Your task to perform on an android device: Go to location settings Image 0: 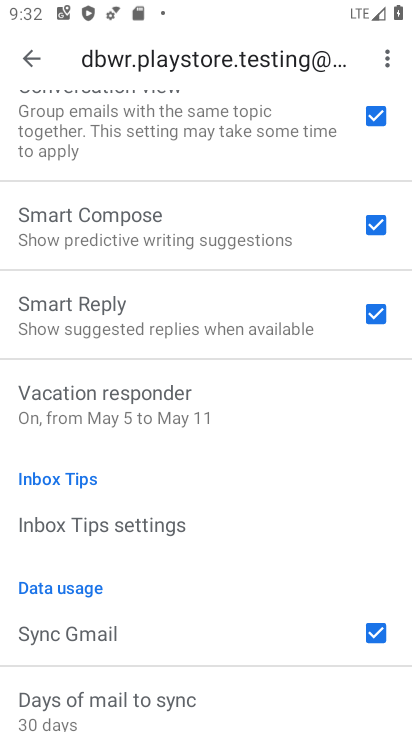
Step 0: press home button
Your task to perform on an android device: Go to location settings Image 1: 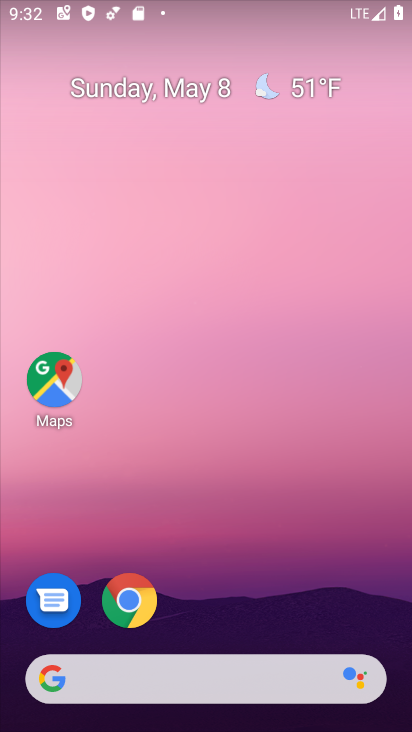
Step 1: drag from (324, 614) to (293, 6)
Your task to perform on an android device: Go to location settings Image 2: 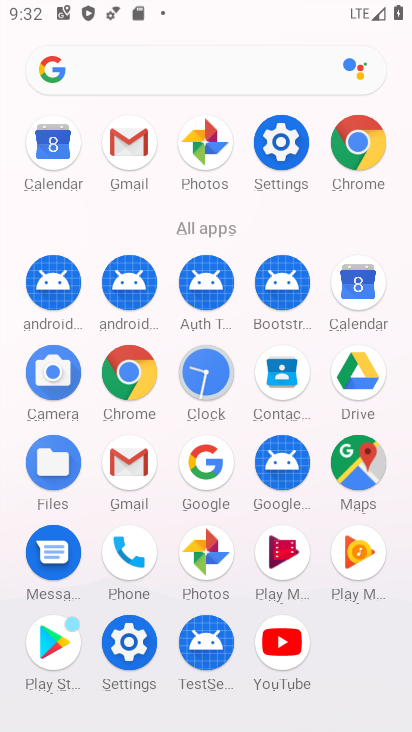
Step 2: click (278, 141)
Your task to perform on an android device: Go to location settings Image 3: 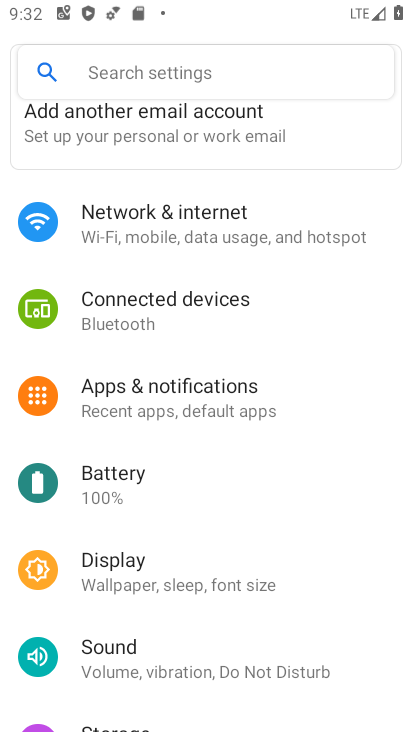
Step 3: drag from (344, 611) to (356, 147)
Your task to perform on an android device: Go to location settings Image 4: 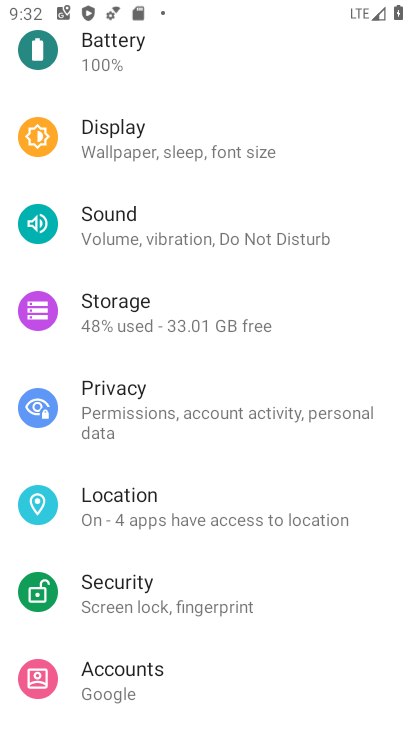
Step 4: click (118, 516)
Your task to perform on an android device: Go to location settings Image 5: 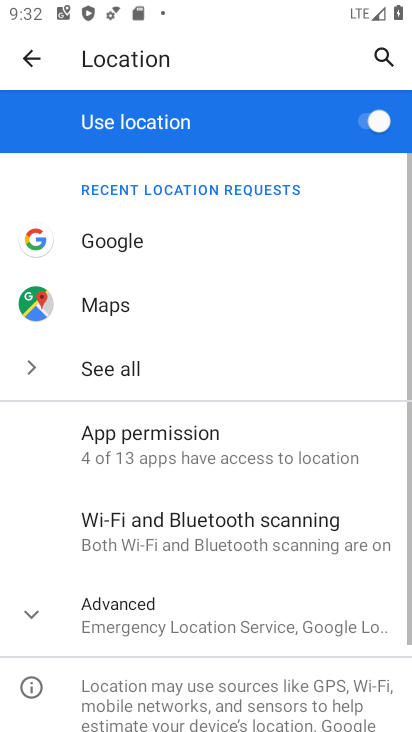
Step 5: task complete